Your task to perform on an android device: Open Google Maps and go to "Timeline" Image 0: 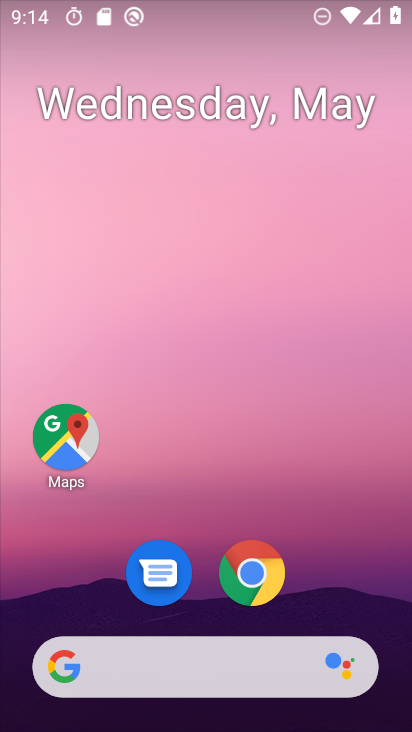
Step 0: click (68, 424)
Your task to perform on an android device: Open Google Maps and go to "Timeline" Image 1: 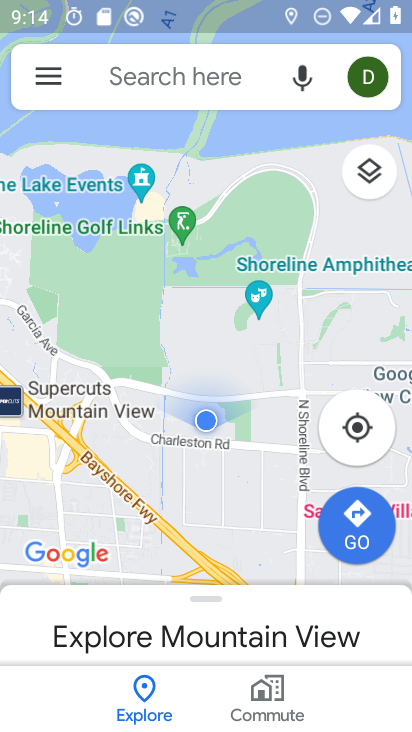
Step 1: click (37, 76)
Your task to perform on an android device: Open Google Maps and go to "Timeline" Image 2: 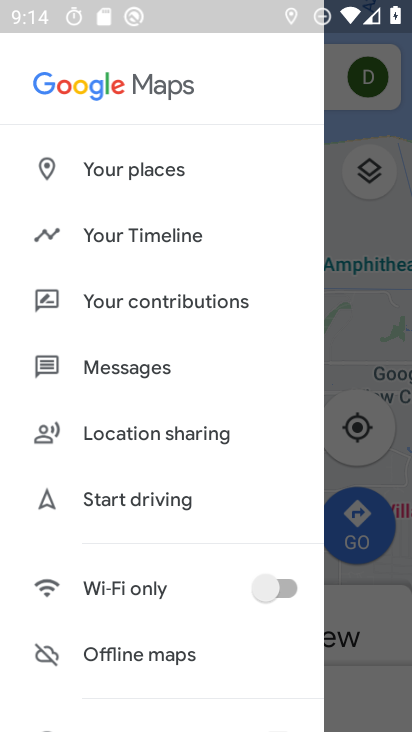
Step 2: click (110, 230)
Your task to perform on an android device: Open Google Maps and go to "Timeline" Image 3: 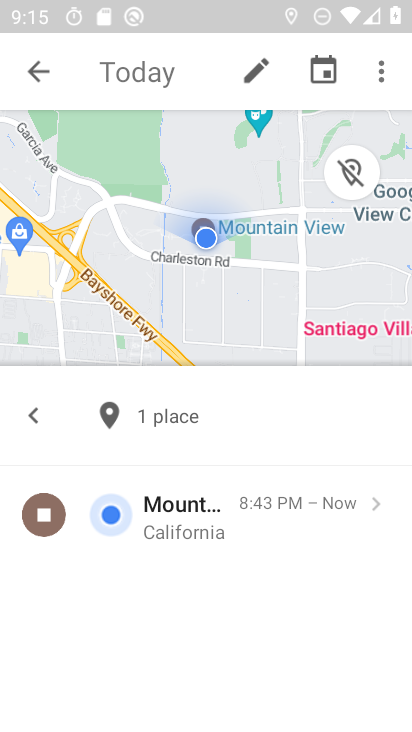
Step 3: task complete